Your task to perform on an android device: Open the calendar and show me this week's events Image 0: 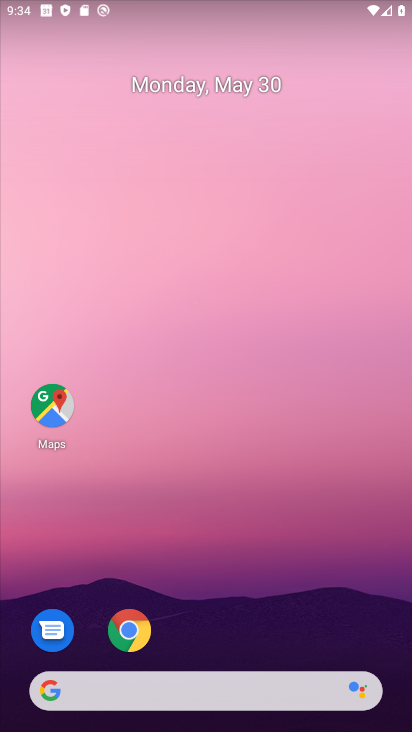
Step 0: drag from (249, 640) to (199, 50)
Your task to perform on an android device: Open the calendar and show me this week's events Image 1: 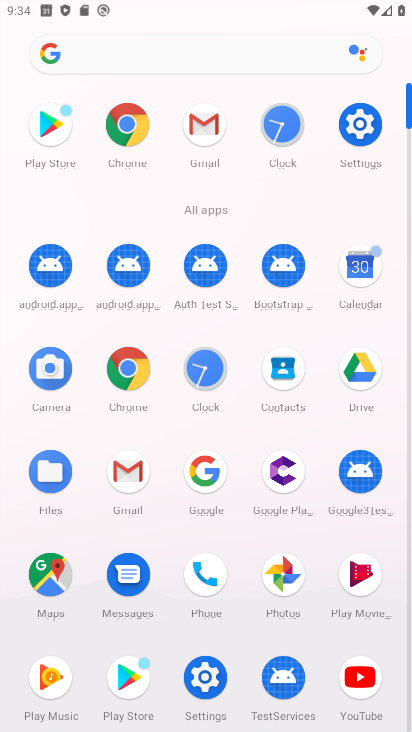
Step 1: click (376, 143)
Your task to perform on an android device: Open the calendar and show me this week's events Image 2: 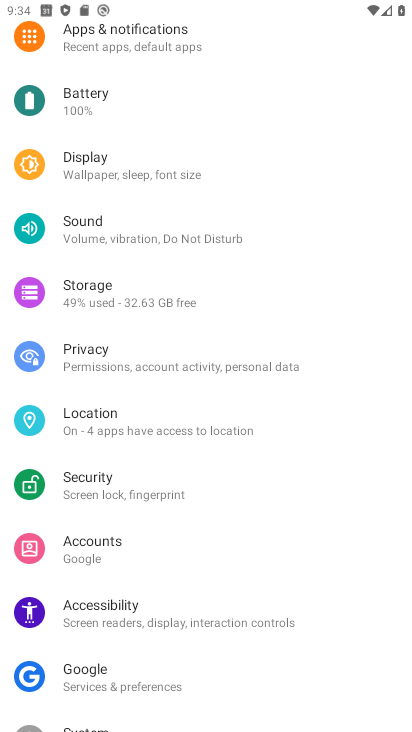
Step 2: task complete